Your task to perform on an android device: check battery use Image 0: 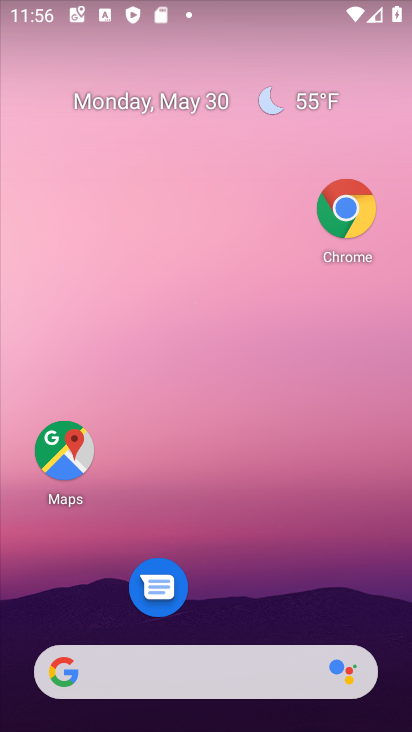
Step 0: drag from (257, 9) to (208, 549)
Your task to perform on an android device: check battery use Image 1: 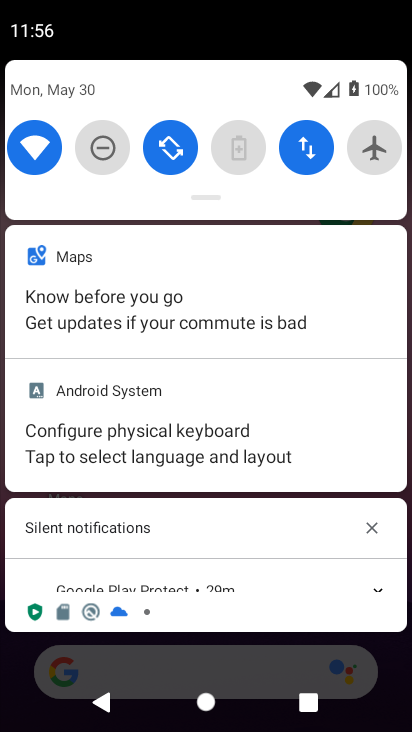
Step 1: click (238, 146)
Your task to perform on an android device: check battery use Image 2: 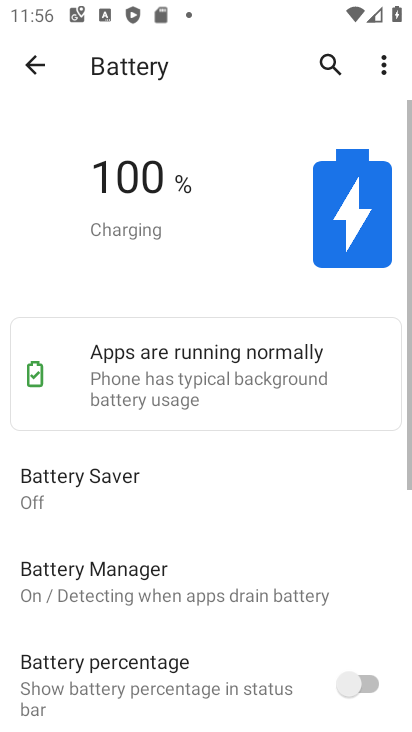
Step 2: task complete